Your task to perform on an android device: Open Youtube and go to "Your channel" Image 0: 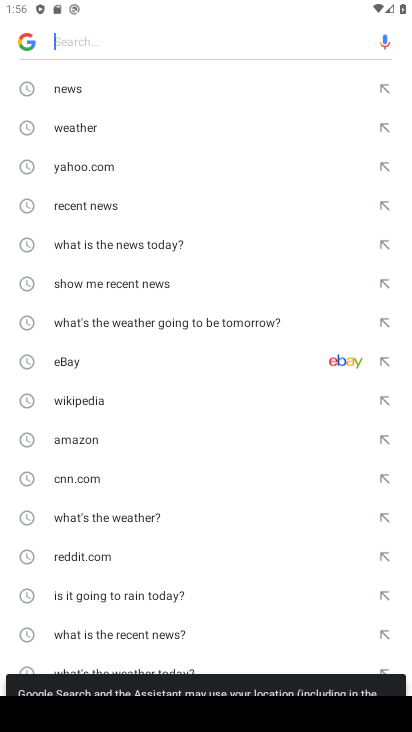
Step 0: press home button
Your task to perform on an android device: Open Youtube and go to "Your channel" Image 1: 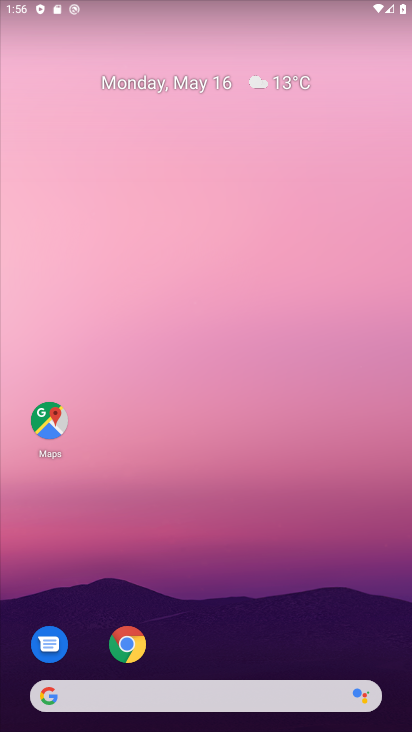
Step 1: drag from (245, 678) to (238, 226)
Your task to perform on an android device: Open Youtube and go to "Your channel" Image 2: 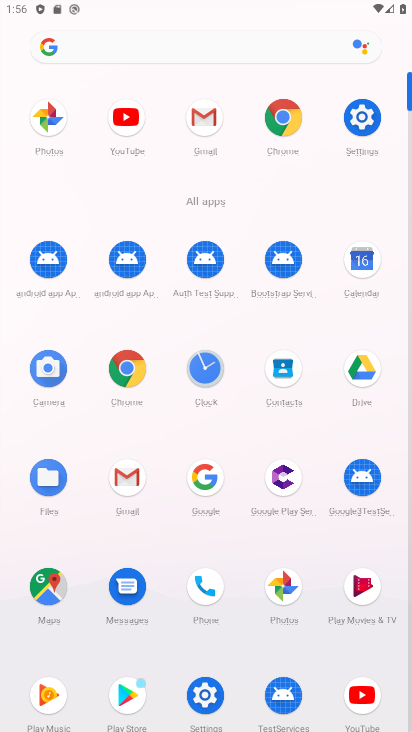
Step 2: click (129, 113)
Your task to perform on an android device: Open Youtube and go to "Your channel" Image 3: 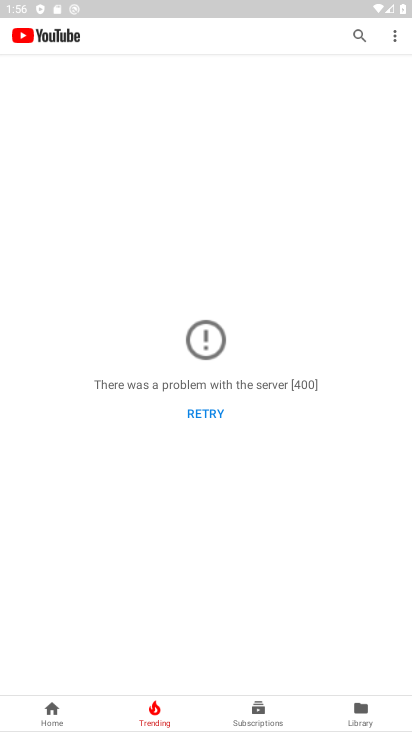
Step 3: click (393, 31)
Your task to perform on an android device: Open Youtube and go to "Your channel" Image 4: 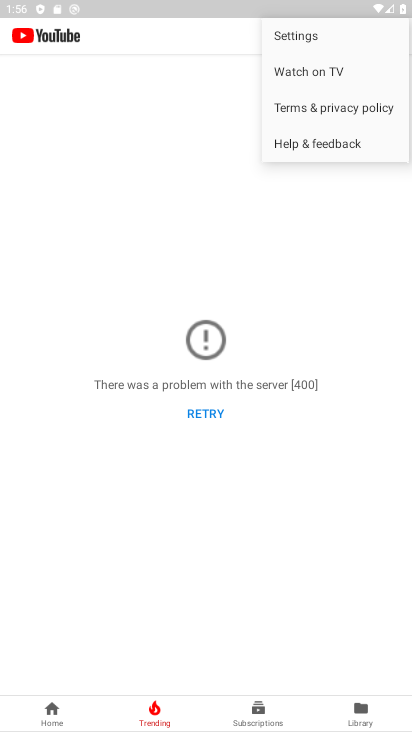
Step 4: click (315, 30)
Your task to perform on an android device: Open Youtube and go to "Your channel" Image 5: 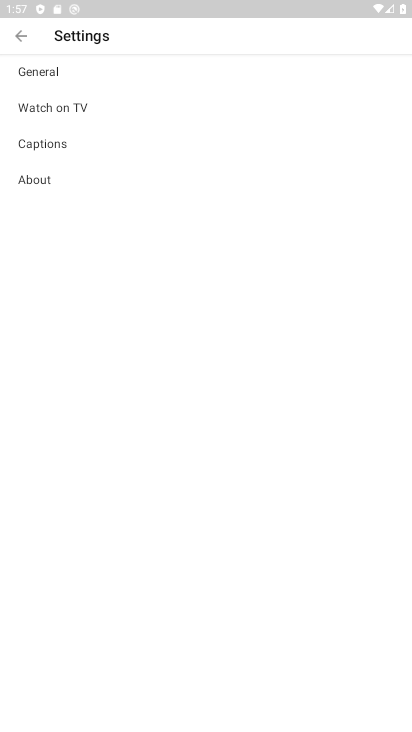
Step 5: click (9, 16)
Your task to perform on an android device: Open Youtube and go to "Your channel" Image 6: 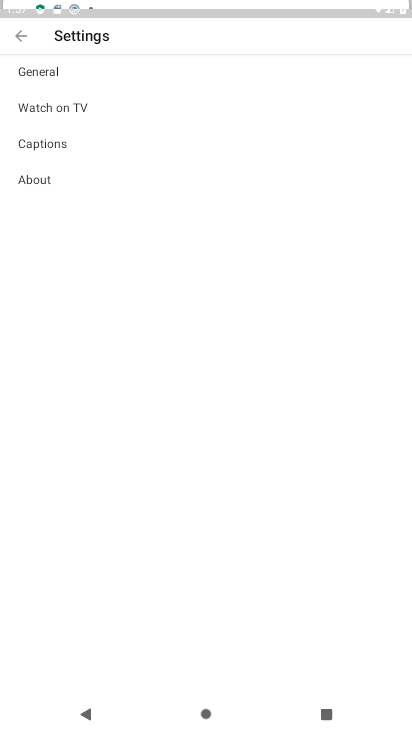
Step 6: click (16, 26)
Your task to perform on an android device: Open Youtube and go to "Your channel" Image 7: 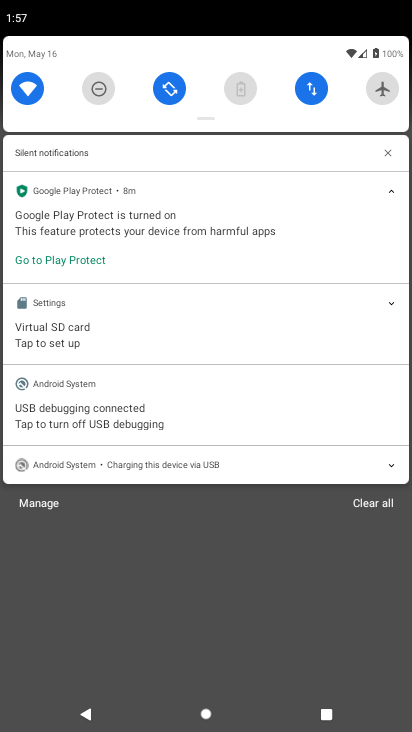
Step 7: drag from (300, 610) to (262, 16)
Your task to perform on an android device: Open Youtube and go to "Your channel" Image 8: 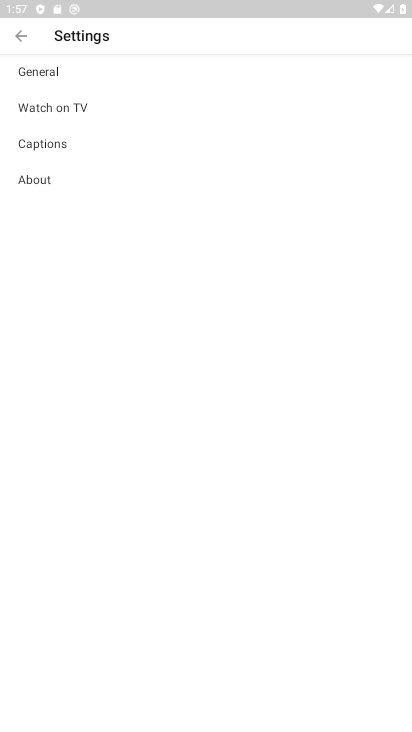
Step 8: click (19, 43)
Your task to perform on an android device: Open Youtube and go to "Your channel" Image 9: 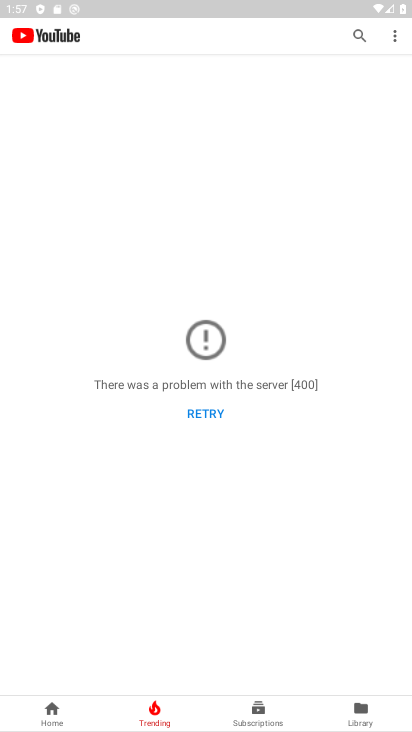
Step 9: click (350, 712)
Your task to perform on an android device: Open Youtube and go to "Your channel" Image 10: 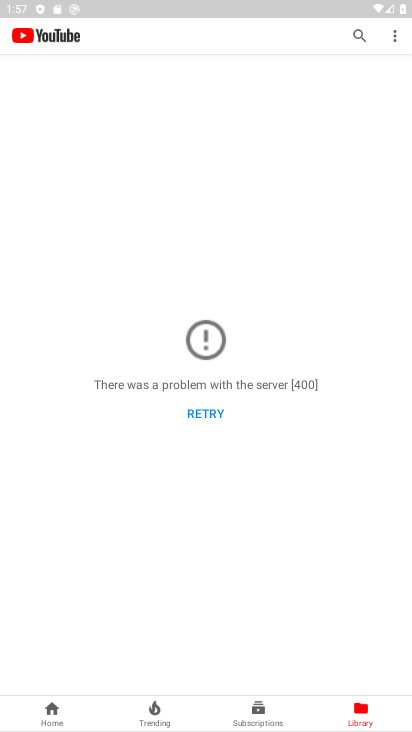
Step 10: click (67, 714)
Your task to perform on an android device: Open Youtube and go to "Your channel" Image 11: 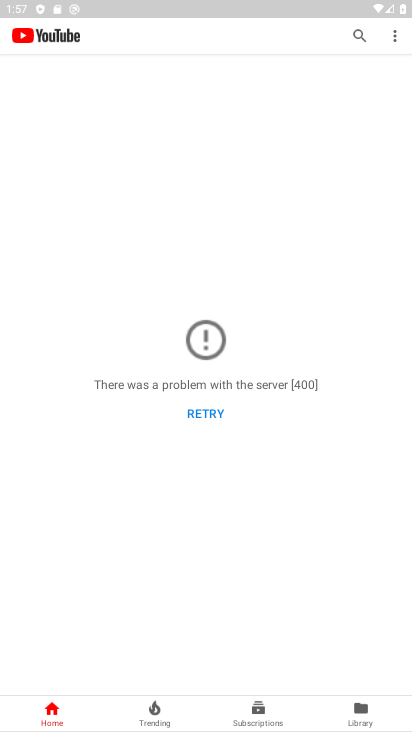
Step 11: click (391, 41)
Your task to perform on an android device: Open Youtube and go to "Your channel" Image 12: 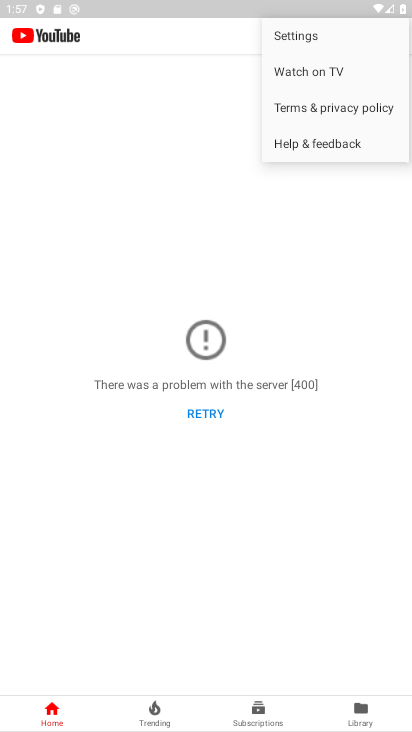
Step 12: click (291, 41)
Your task to perform on an android device: Open Youtube and go to "Your channel" Image 13: 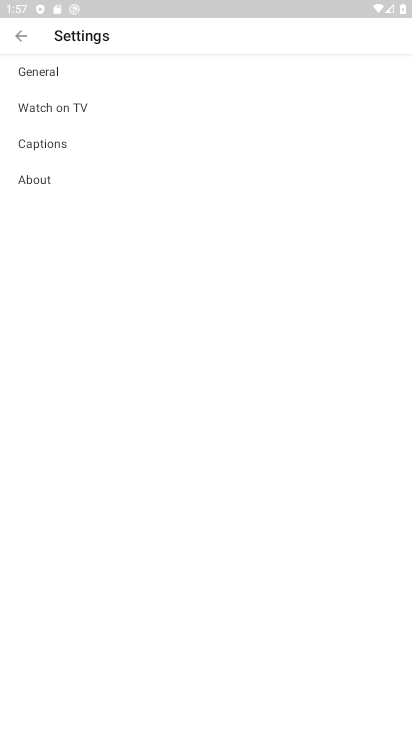
Step 13: click (55, 76)
Your task to perform on an android device: Open Youtube and go to "Your channel" Image 14: 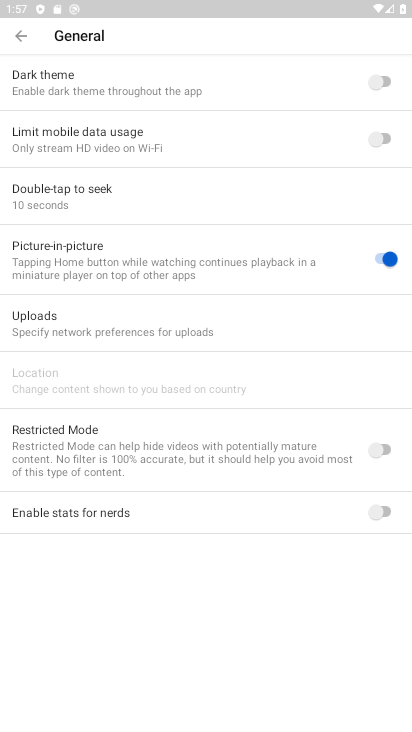
Step 14: task complete